Your task to perform on an android device: turn on sleep mode Image 0: 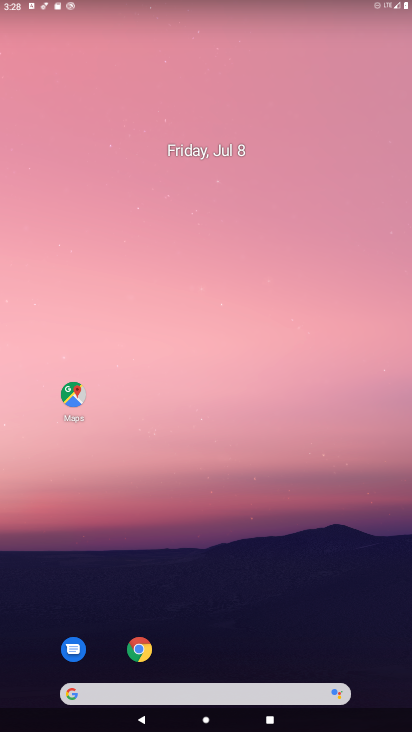
Step 0: drag from (375, 670) to (329, 68)
Your task to perform on an android device: turn on sleep mode Image 1: 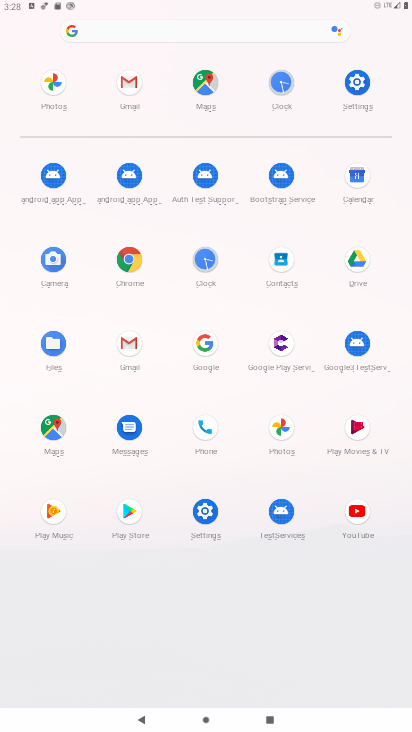
Step 1: click (205, 511)
Your task to perform on an android device: turn on sleep mode Image 2: 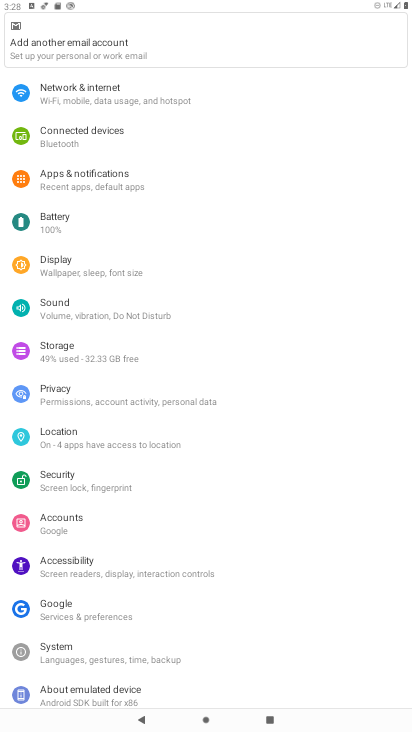
Step 2: click (45, 260)
Your task to perform on an android device: turn on sleep mode Image 3: 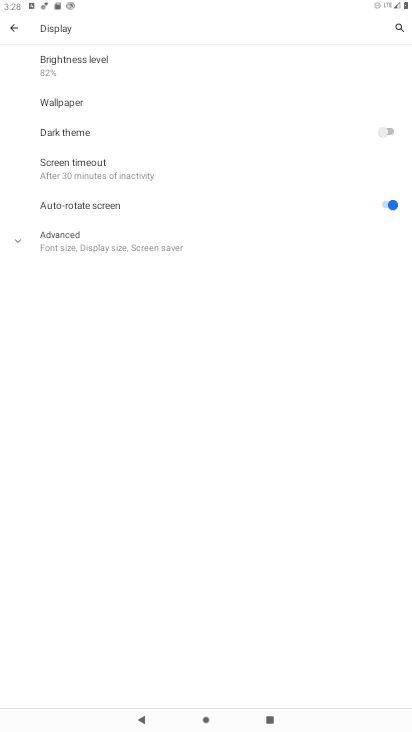
Step 3: click (13, 243)
Your task to perform on an android device: turn on sleep mode Image 4: 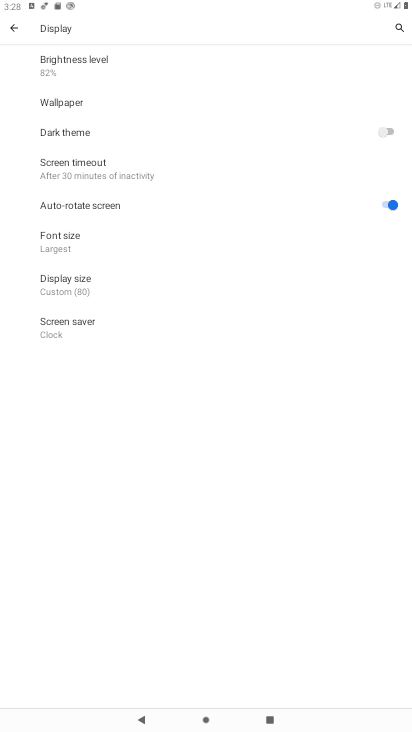
Step 4: task complete